Your task to perform on an android device: Open Android settings Image 0: 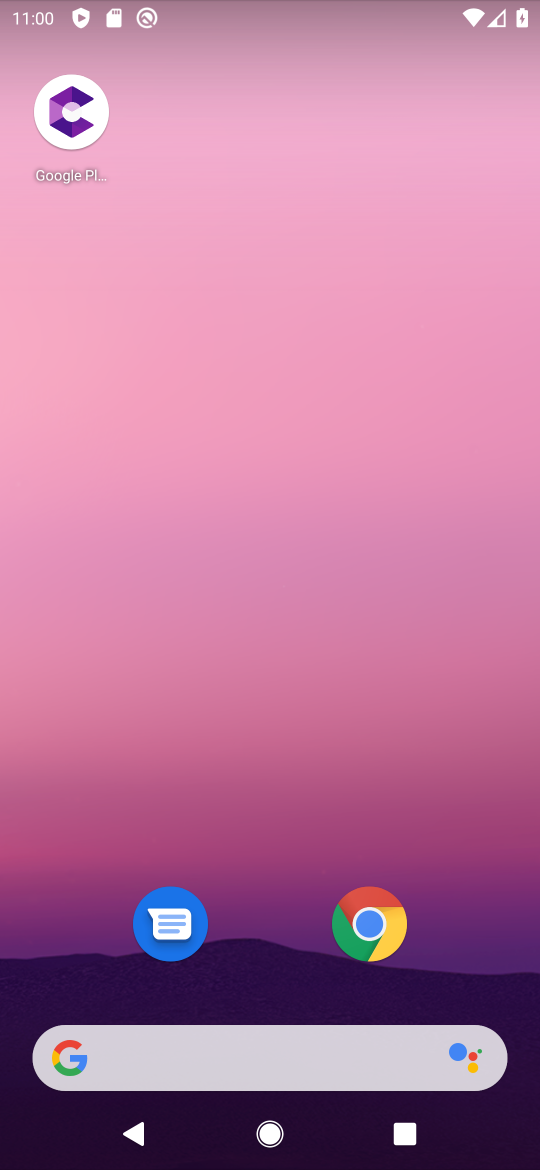
Step 0: drag from (284, 990) to (199, 201)
Your task to perform on an android device: Open Android settings Image 1: 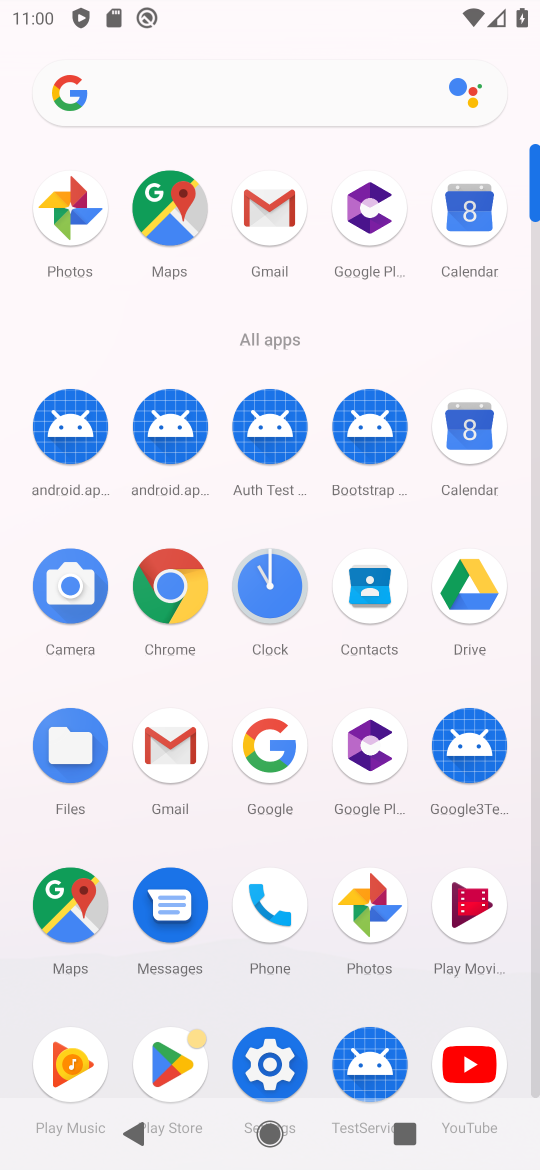
Step 1: click (265, 1019)
Your task to perform on an android device: Open Android settings Image 2: 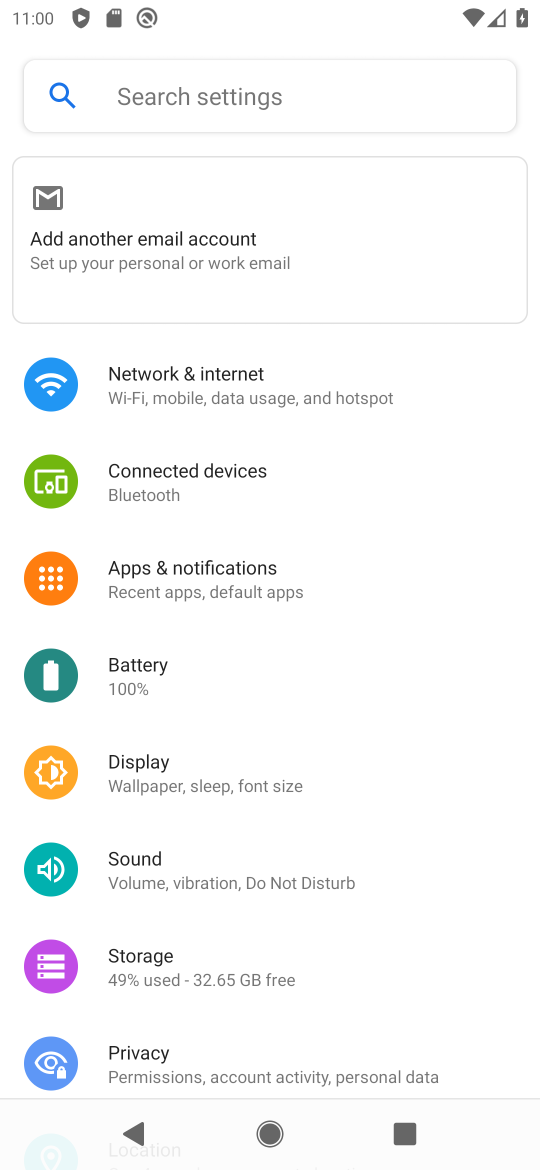
Step 2: task complete